Your task to perform on an android device: change text size in settings app Image 0: 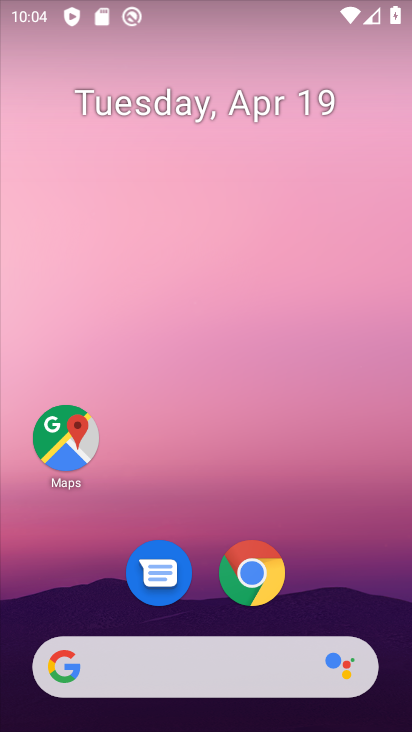
Step 0: drag from (346, 586) to (341, 124)
Your task to perform on an android device: change text size in settings app Image 1: 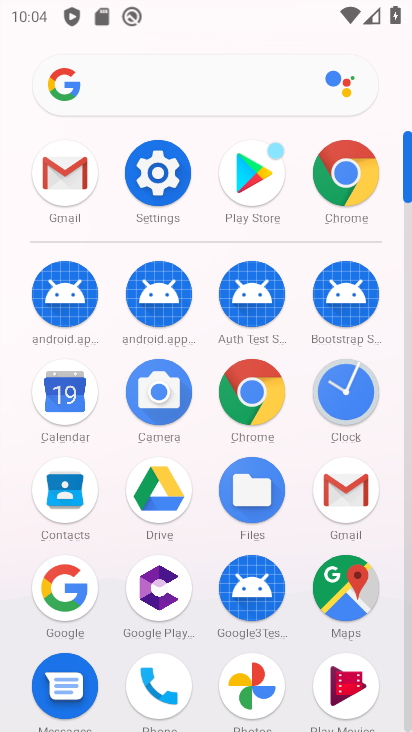
Step 1: click (162, 186)
Your task to perform on an android device: change text size in settings app Image 2: 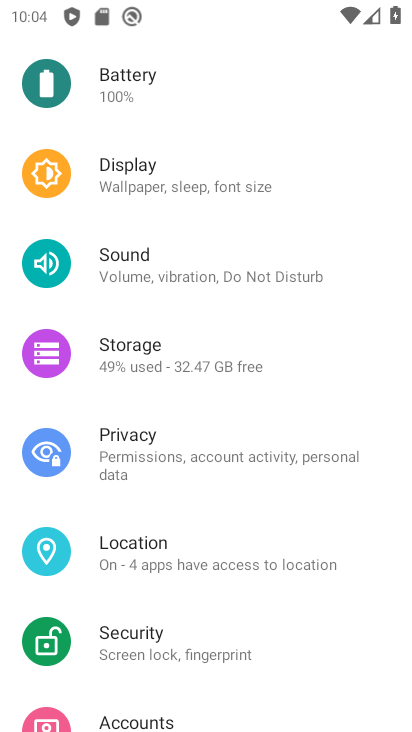
Step 2: drag from (377, 283) to (365, 545)
Your task to perform on an android device: change text size in settings app Image 3: 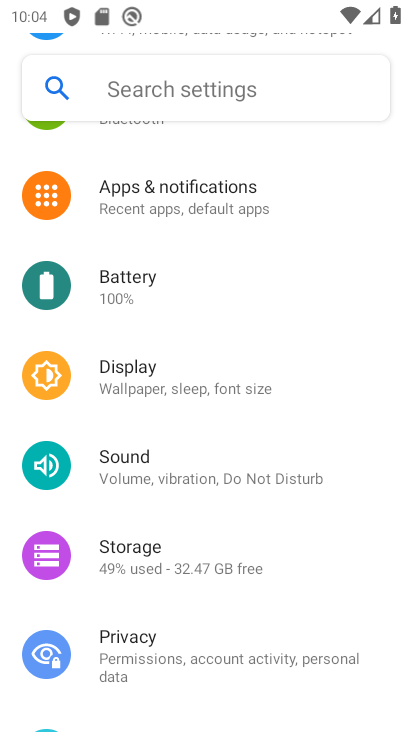
Step 3: drag from (369, 253) to (363, 555)
Your task to perform on an android device: change text size in settings app Image 4: 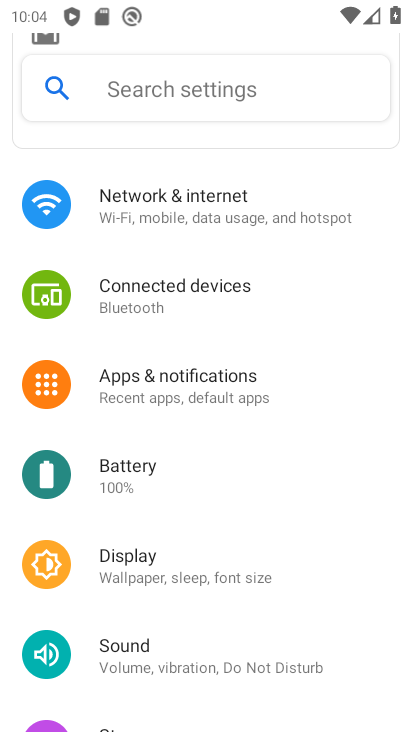
Step 4: drag from (371, 581) to (379, 276)
Your task to perform on an android device: change text size in settings app Image 5: 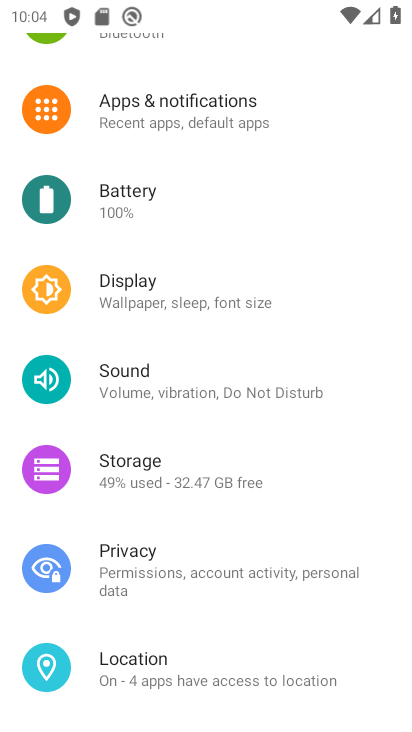
Step 5: drag from (368, 605) to (374, 229)
Your task to perform on an android device: change text size in settings app Image 6: 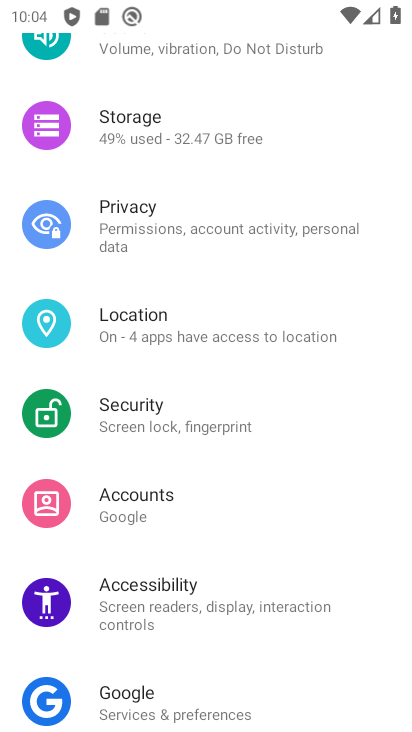
Step 6: drag from (371, 640) to (377, 287)
Your task to perform on an android device: change text size in settings app Image 7: 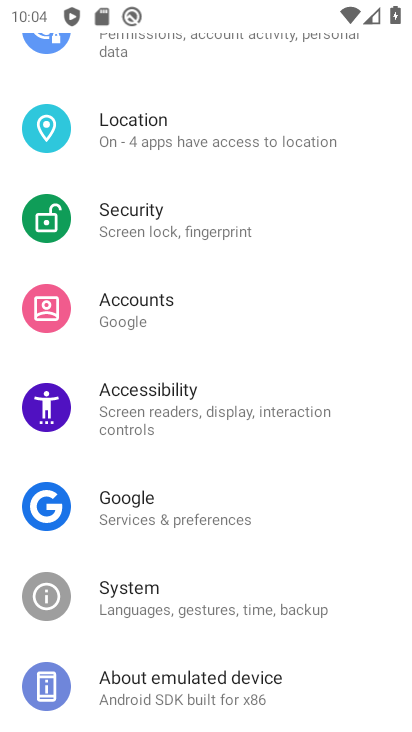
Step 7: drag from (382, 257) to (356, 520)
Your task to perform on an android device: change text size in settings app Image 8: 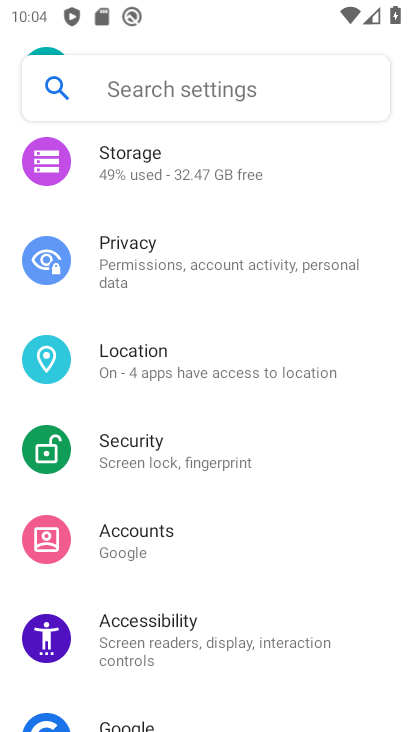
Step 8: drag from (365, 317) to (361, 542)
Your task to perform on an android device: change text size in settings app Image 9: 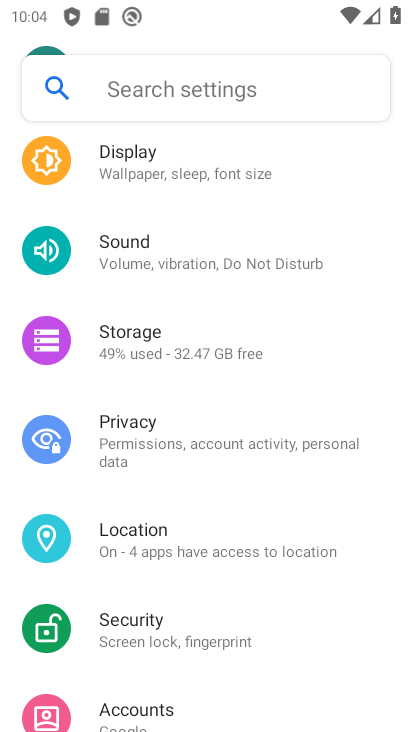
Step 9: drag from (384, 240) to (381, 521)
Your task to perform on an android device: change text size in settings app Image 10: 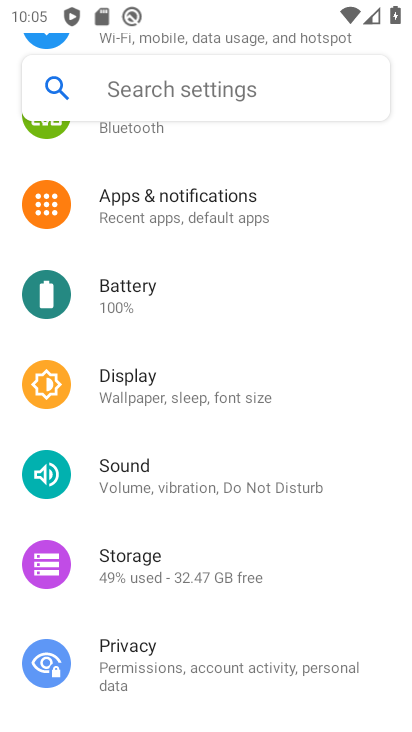
Step 10: click (202, 384)
Your task to perform on an android device: change text size in settings app Image 11: 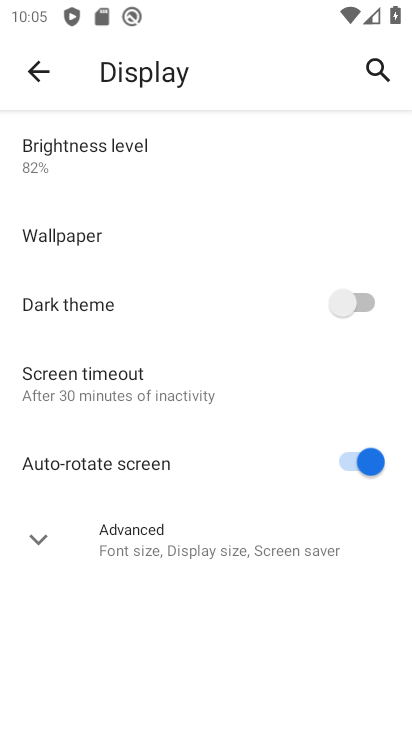
Step 11: click (196, 560)
Your task to perform on an android device: change text size in settings app Image 12: 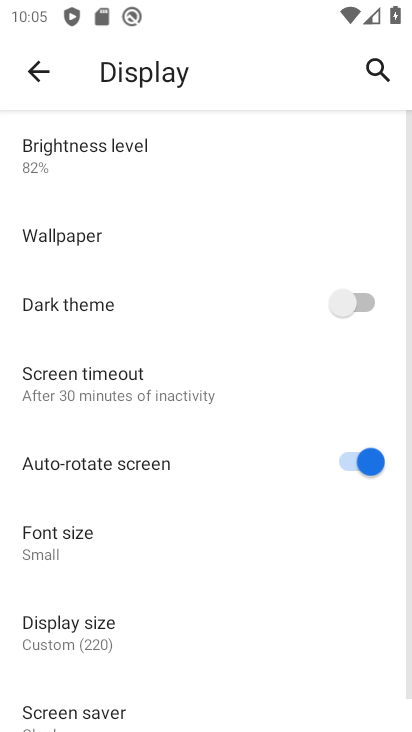
Step 12: click (47, 542)
Your task to perform on an android device: change text size in settings app Image 13: 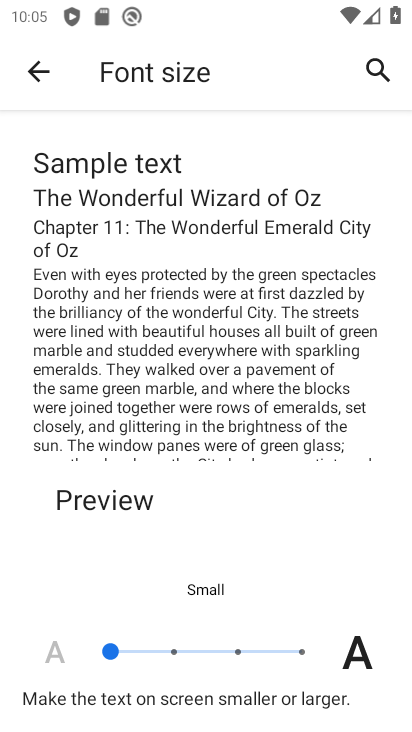
Step 13: click (171, 651)
Your task to perform on an android device: change text size in settings app Image 14: 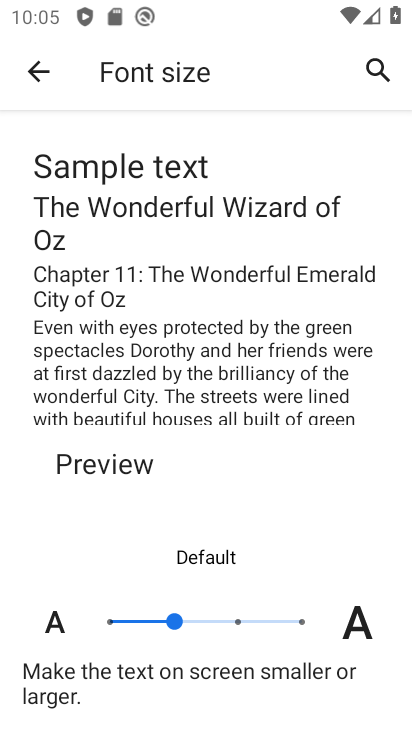
Step 14: task complete